Your task to perform on an android device: Open display settings Image 0: 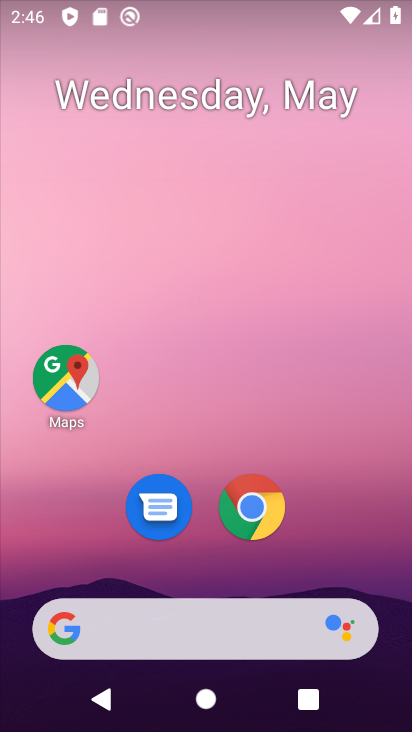
Step 0: drag from (204, 539) to (218, 65)
Your task to perform on an android device: Open display settings Image 1: 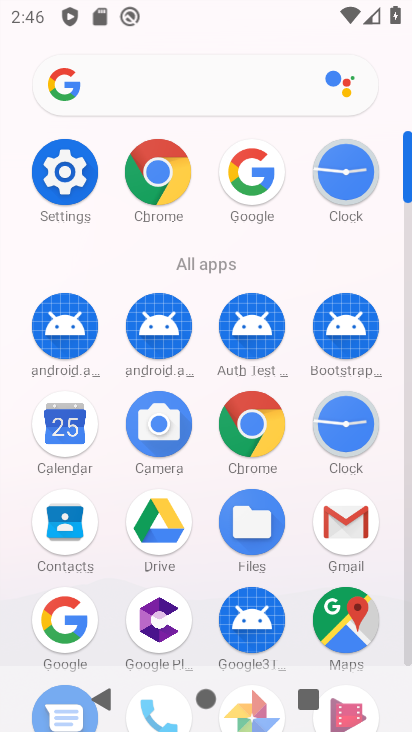
Step 1: click (68, 178)
Your task to perform on an android device: Open display settings Image 2: 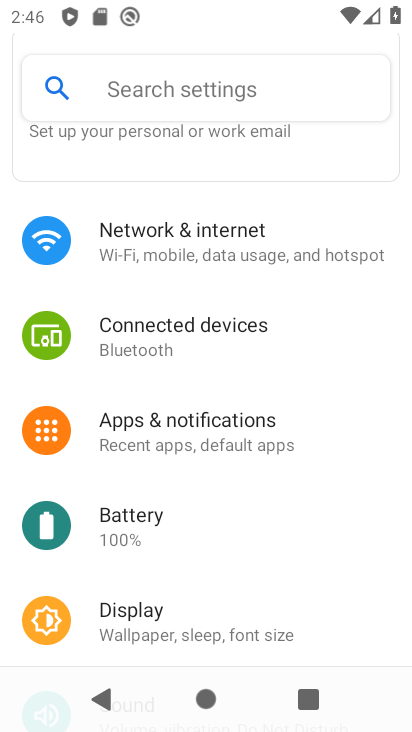
Step 2: click (157, 626)
Your task to perform on an android device: Open display settings Image 3: 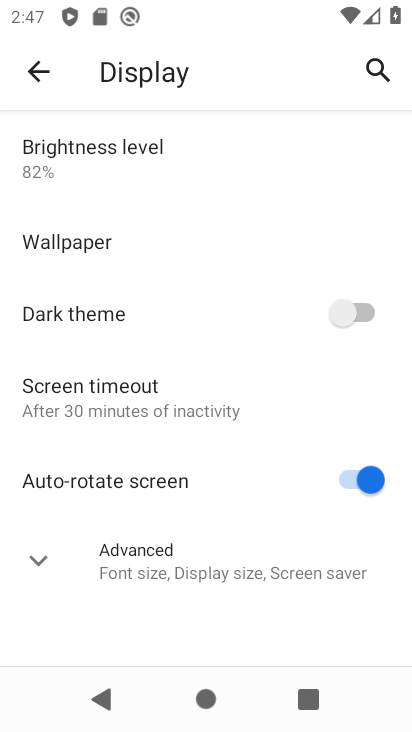
Step 3: task complete